Your task to perform on an android device: Search for sushi restaurants on Maps Image 0: 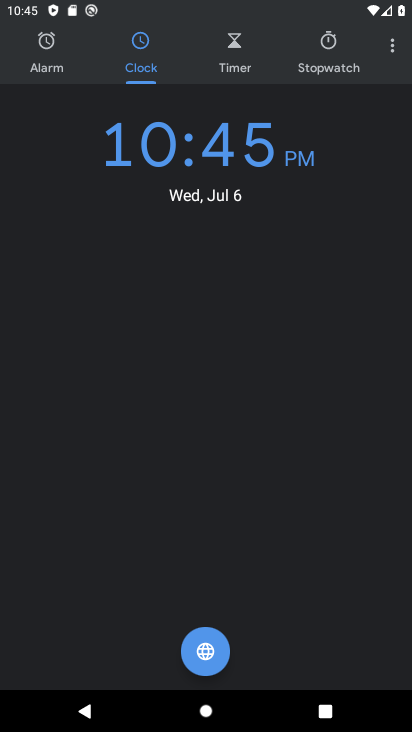
Step 0: press home button
Your task to perform on an android device: Search for sushi restaurants on Maps Image 1: 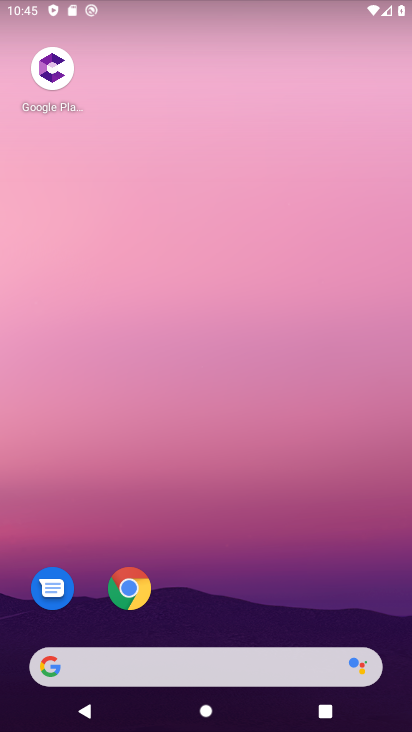
Step 1: drag from (274, 590) to (286, 42)
Your task to perform on an android device: Search for sushi restaurants on Maps Image 2: 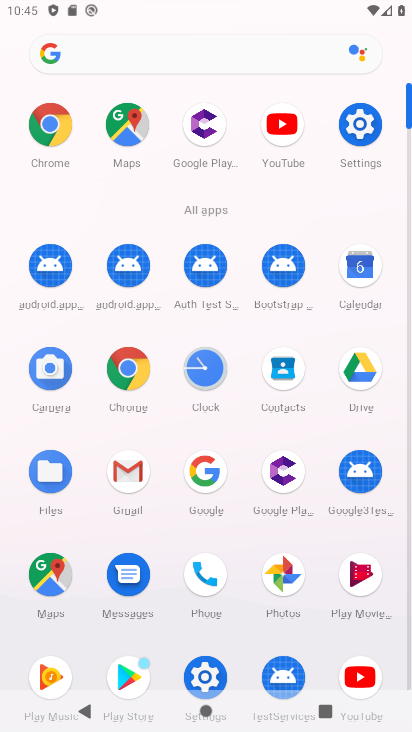
Step 2: click (48, 573)
Your task to perform on an android device: Search for sushi restaurants on Maps Image 3: 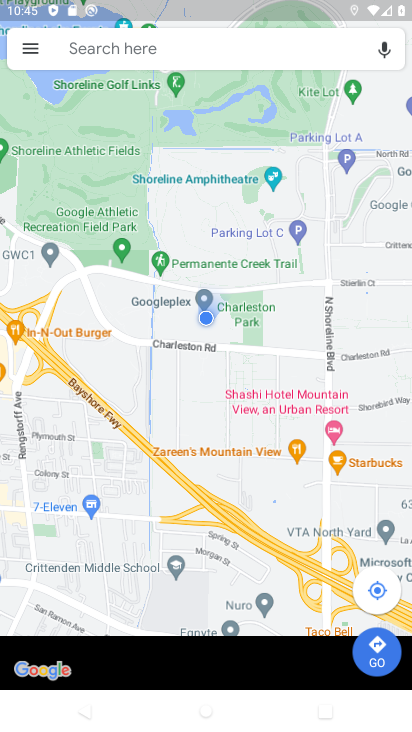
Step 3: click (177, 52)
Your task to perform on an android device: Search for sushi restaurants on Maps Image 4: 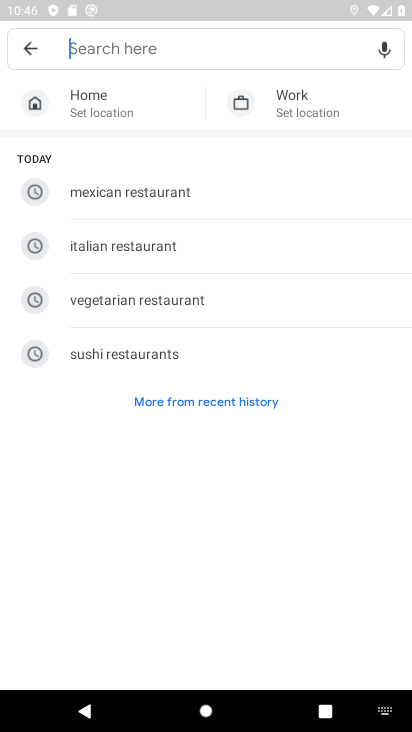
Step 4: type "sushi restaurants"
Your task to perform on an android device: Search for sushi restaurants on Maps Image 5: 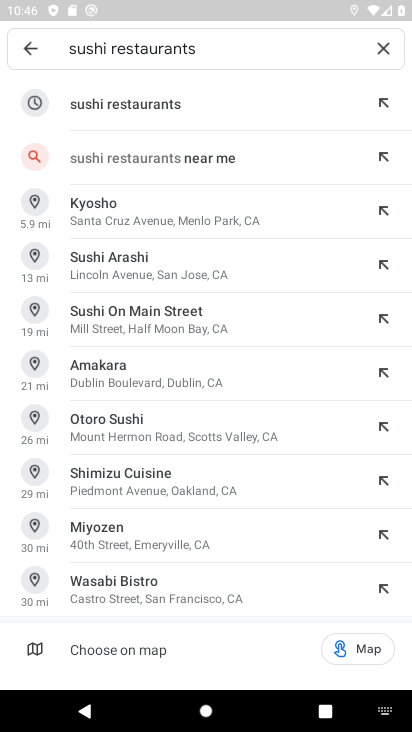
Step 5: click (118, 106)
Your task to perform on an android device: Search for sushi restaurants on Maps Image 6: 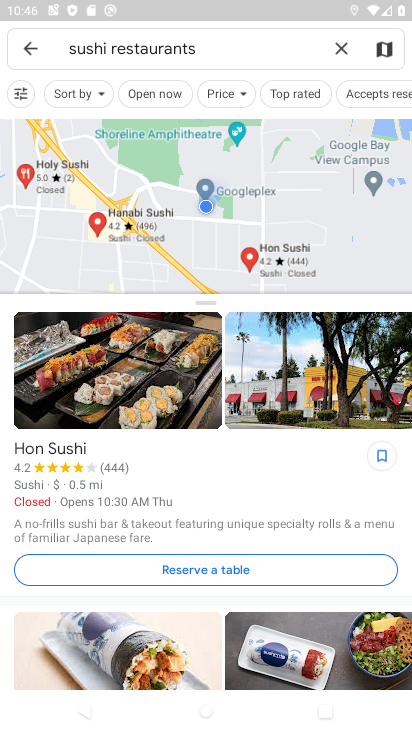
Step 6: task complete